Your task to perform on an android device: Go to display settings Image 0: 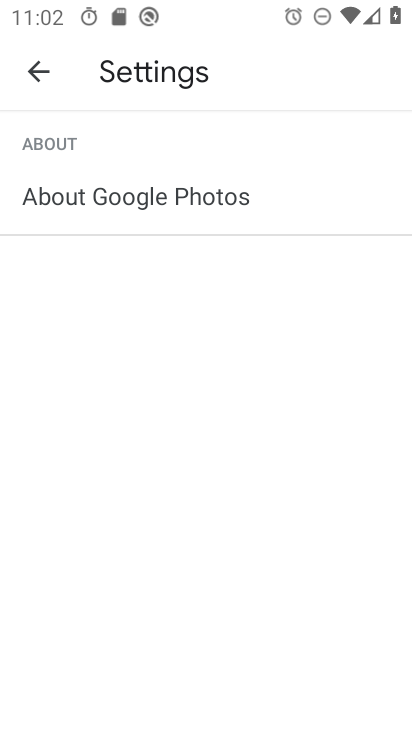
Step 0: press home button
Your task to perform on an android device: Go to display settings Image 1: 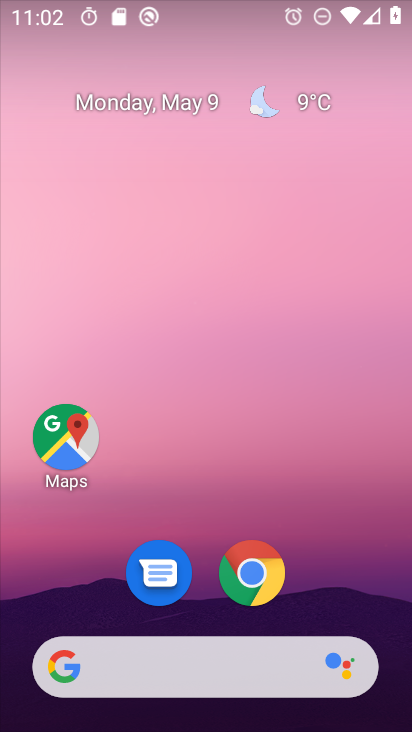
Step 1: drag from (327, 409) to (323, 107)
Your task to perform on an android device: Go to display settings Image 2: 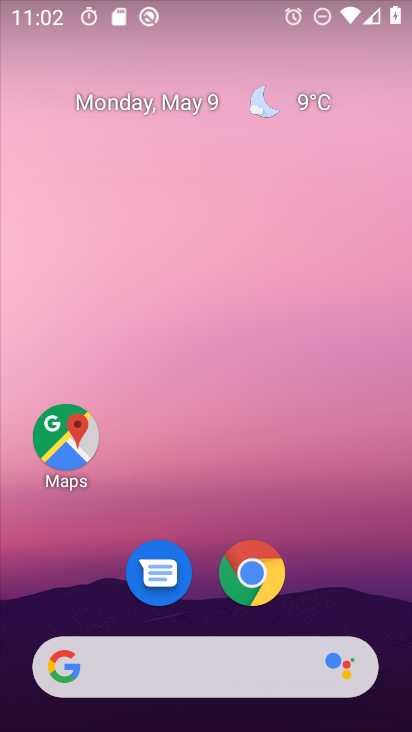
Step 2: drag from (341, 509) to (288, 31)
Your task to perform on an android device: Go to display settings Image 3: 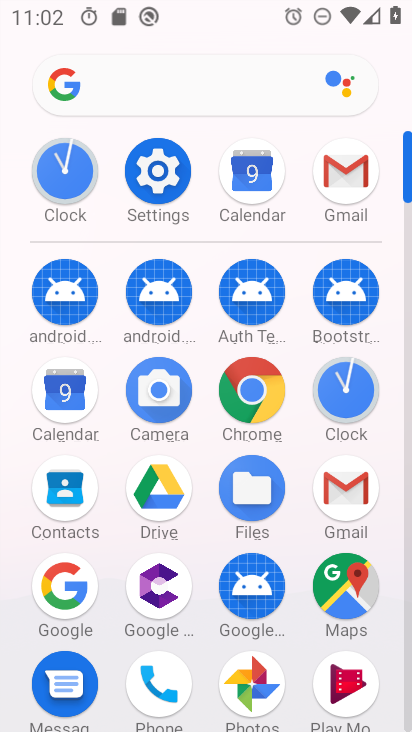
Step 3: click (157, 161)
Your task to perform on an android device: Go to display settings Image 4: 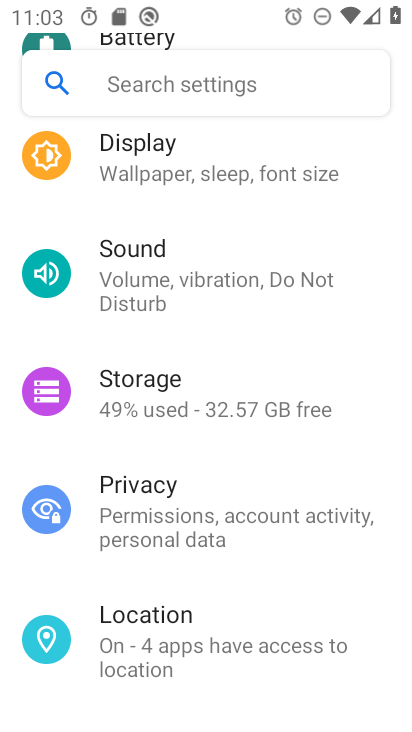
Step 4: click (197, 164)
Your task to perform on an android device: Go to display settings Image 5: 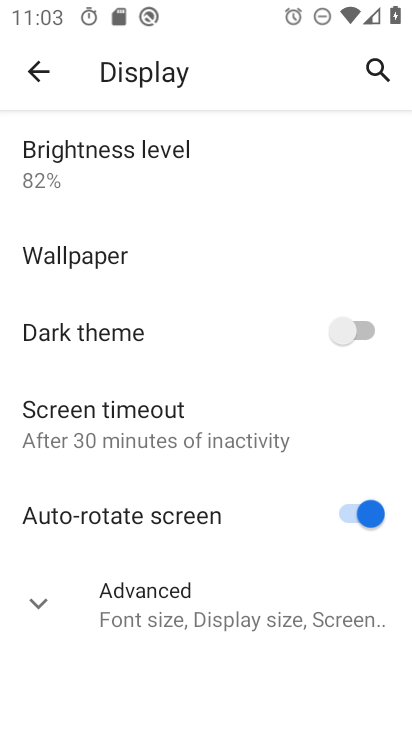
Step 5: task complete